Your task to perform on an android device: all mails in gmail Image 0: 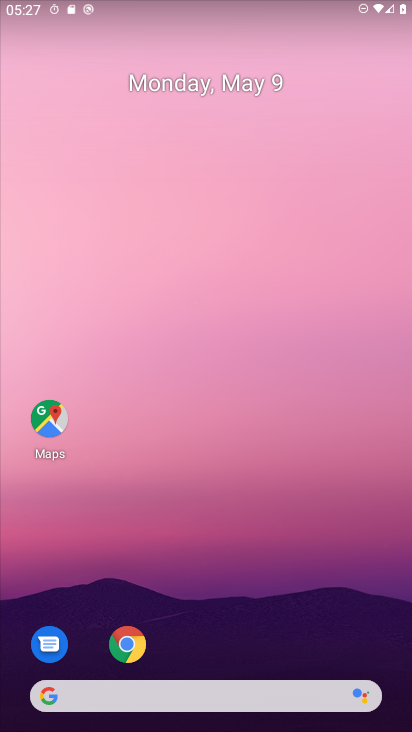
Step 0: drag from (227, 546) to (213, 9)
Your task to perform on an android device: all mails in gmail Image 1: 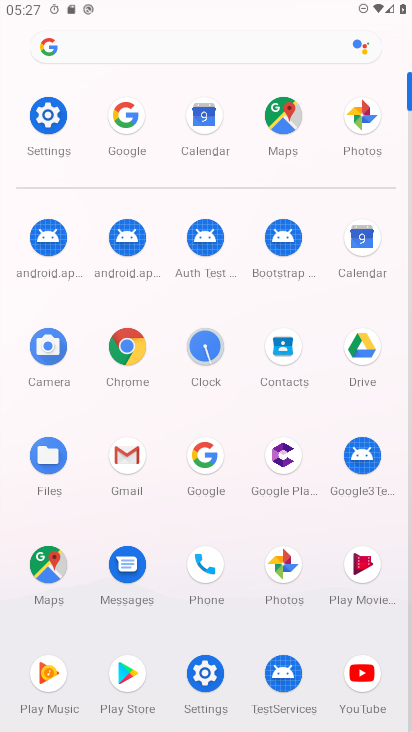
Step 1: click (120, 456)
Your task to perform on an android device: all mails in gmail Image 2: 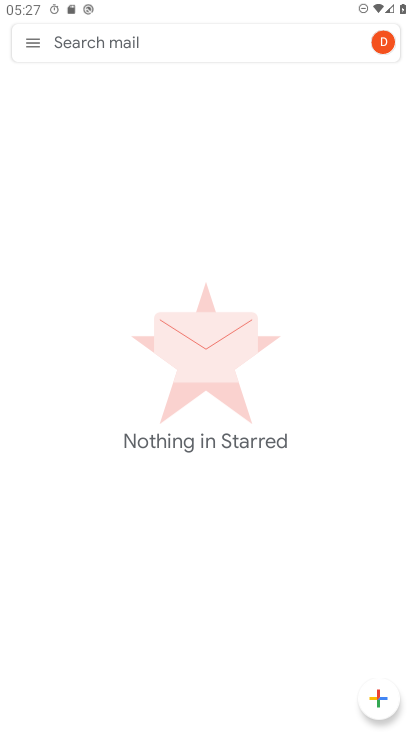
Step 2: click (28, 48)
Your task to perform on an android device: all mails in gmail Image 3: 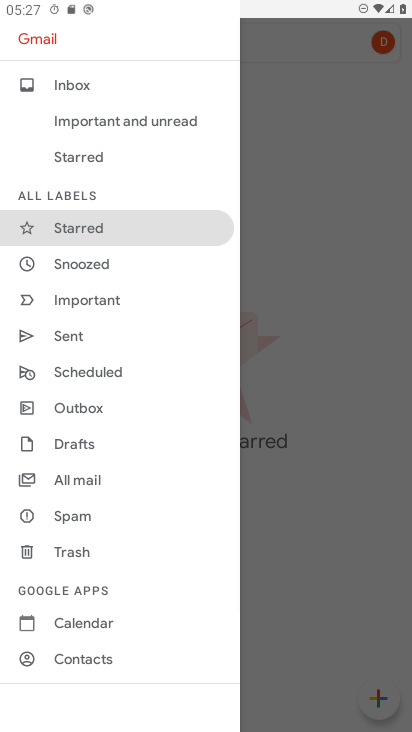
Step 3: click (93, 481)
Your task to perform on an android device: all mails in gmail Image 4: 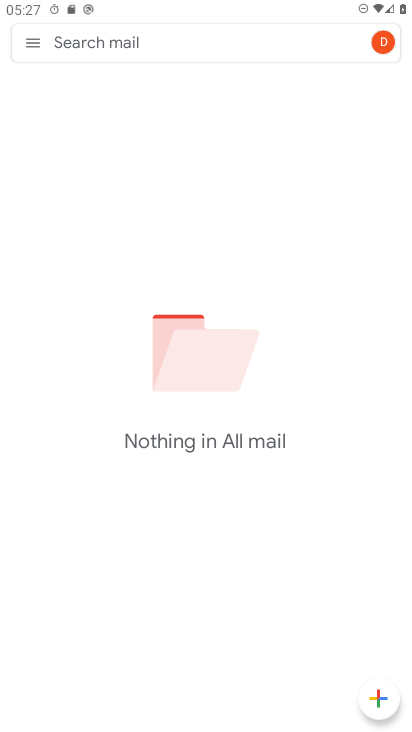
Step 4: task complete